Your task to perform on an android device: check the backup settings in the google photos Image 0: 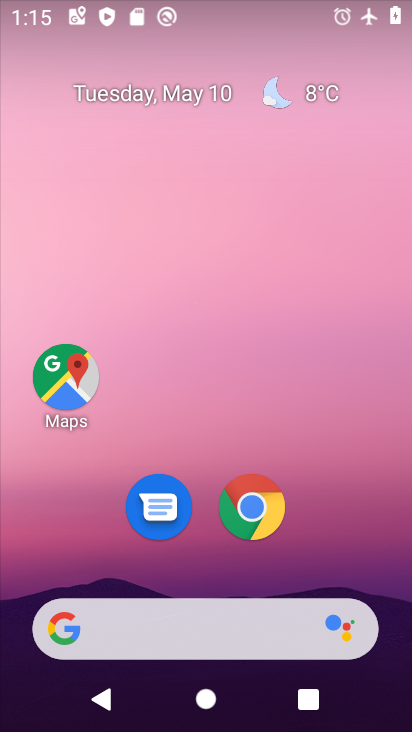
Step 0: drag from (228, 717) to (229, 193)
Your task to perform on an android device: check the backup settings in the google photos Image 1: 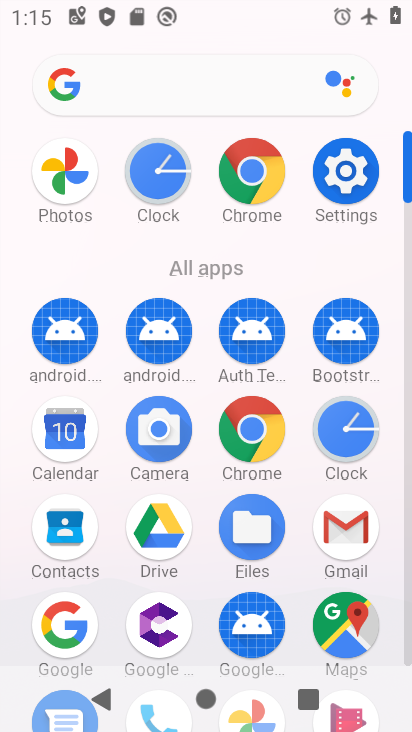
Step 1: drag from (195, 661) to (205, 333)
Your task to perform on an android device: check the backup settings in the google photos Image 2: 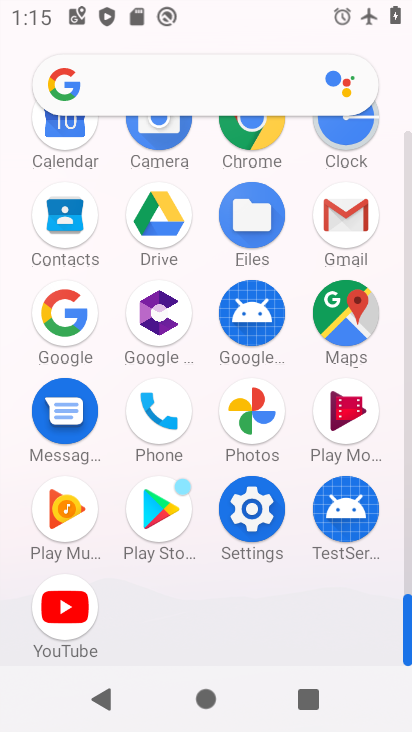
Step 2: click (249, 419)
Your task to perform on an android device: check the backup settings in the google photos Image 3: 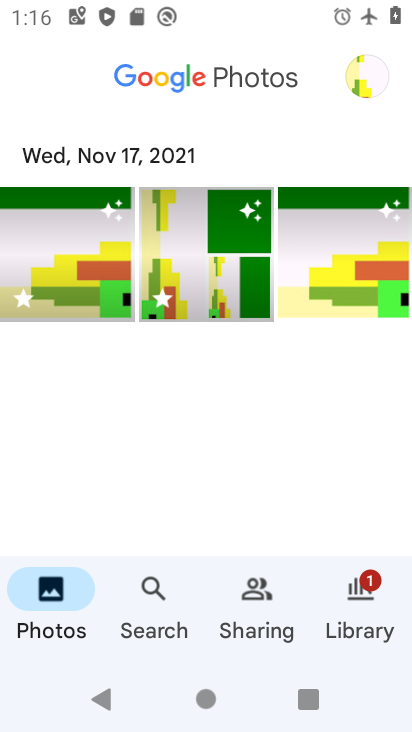
Step 3: click (357, 73)
Your task to perform on an android device: check the backup settings in the google photos Image 4: 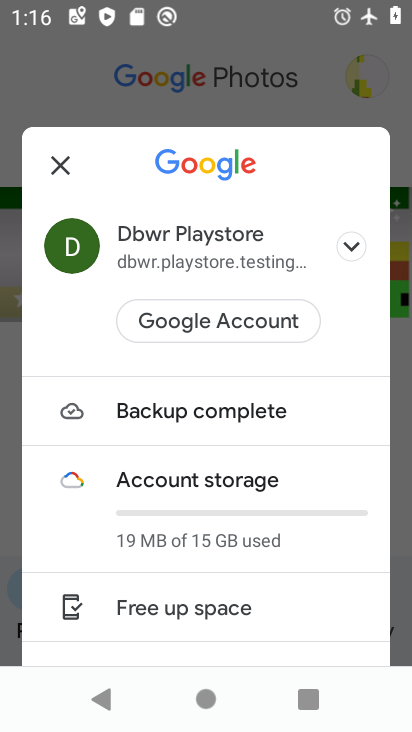
Step 4: drag from (208, 554) to (204, 430)
Your task to perform on an android device: check the backup settings in the google photos Image 5: 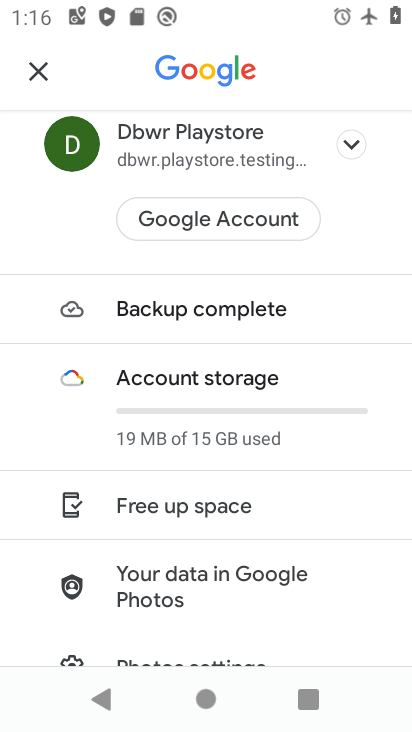
Step 5: drag from (186, 617) to (181, 366)
Your task to perform on an android device: check the backup settings in the google photos Image 6: 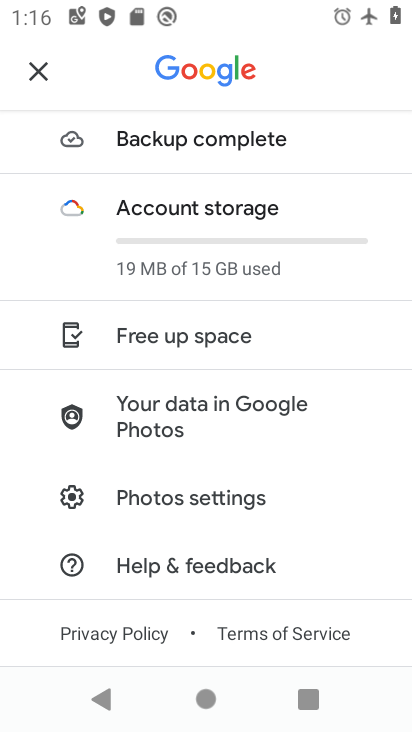
Step 6: click (190, 496)
Your task to perform on an android device: check the backup settings in the google photos Image 7: 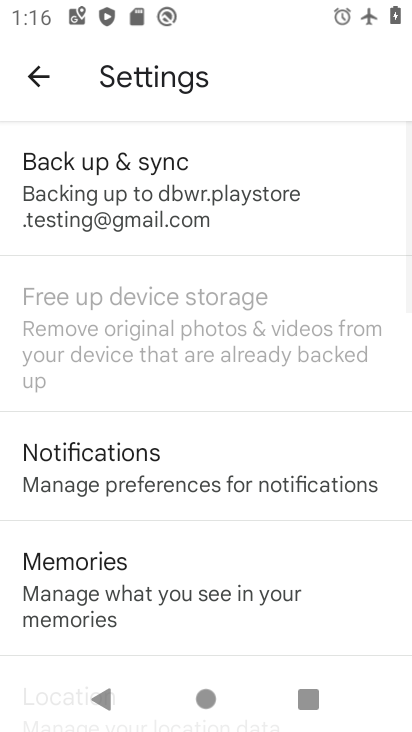
Step 7: click (122, 192)
Your task to perform on an android device: check the backup settings in the google photos Image 8: 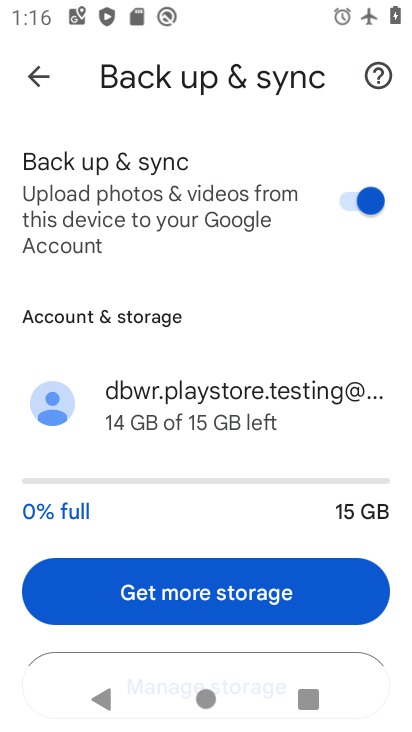
Step 8: task complete